Your task to perform on an android device: Open Yahoo.com Image 0: 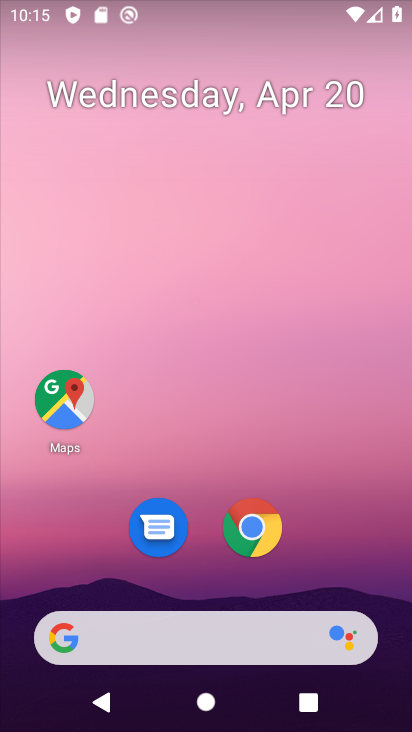
Step 0: click (266, 534)
Your task to perform on an android device: Open Yahoo.com Image 1: 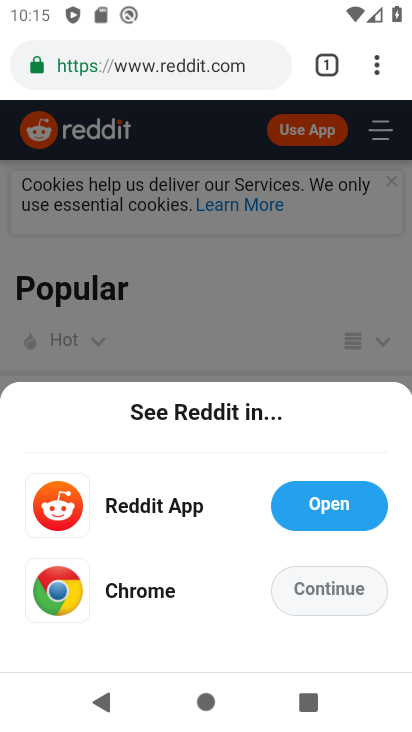
Step 1: click (147, 46)
Your task to perform on an android device: Open Yahoo.com Image 2: 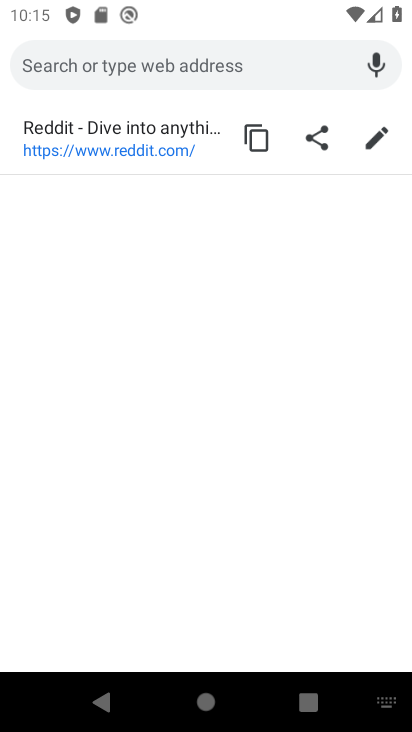
Step 2: type "yahoo.com"
Your task to perform on an android device: Open Yahoo.com Image 3: 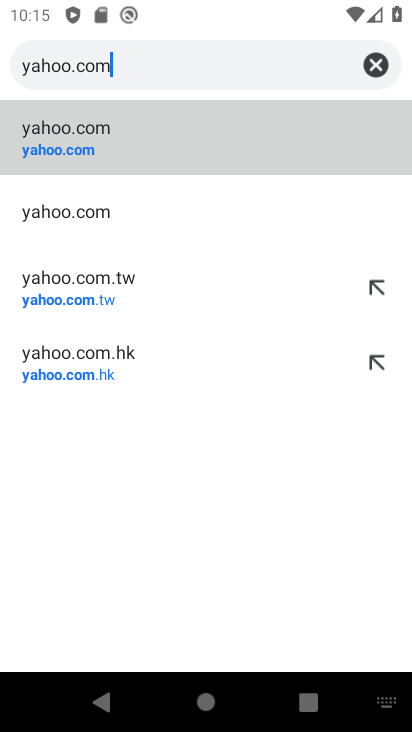
Step 3: click (84, 113)
Your task to perform on an android device: Open Yahoo.com Image 4: 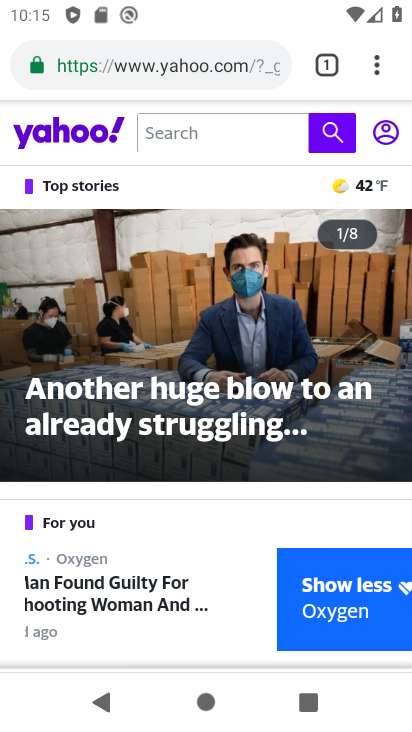
Step 4: task complete